Your task to perform on an android device: Go to Android settings Image 0: 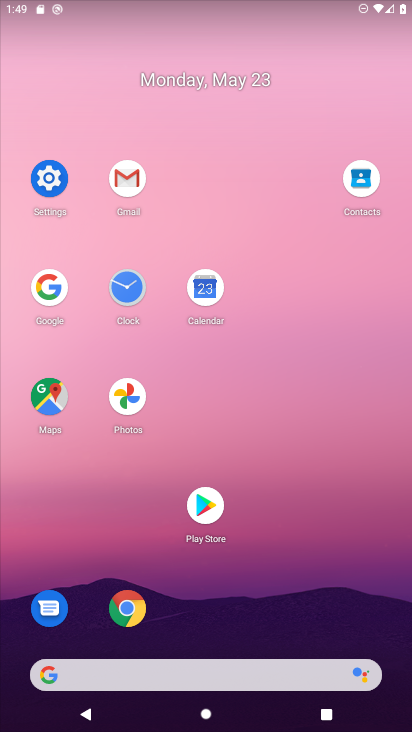
Step 0: click (48, 178)
Your task to perform on an android device: Go to Android settings Image 1: 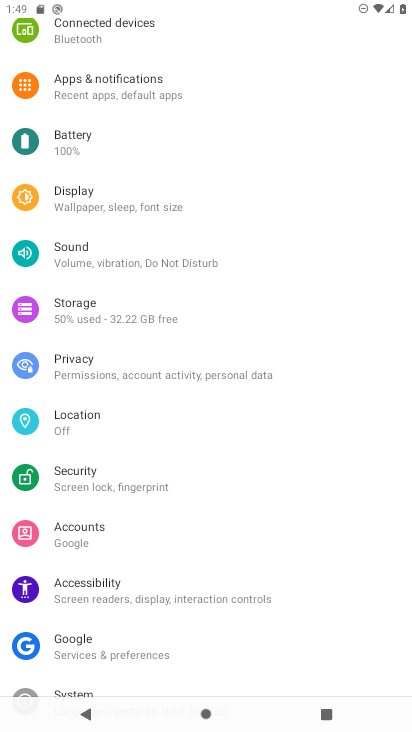
Step 1: task complete